Your task to perform on an android device: set an alarm Image 0: 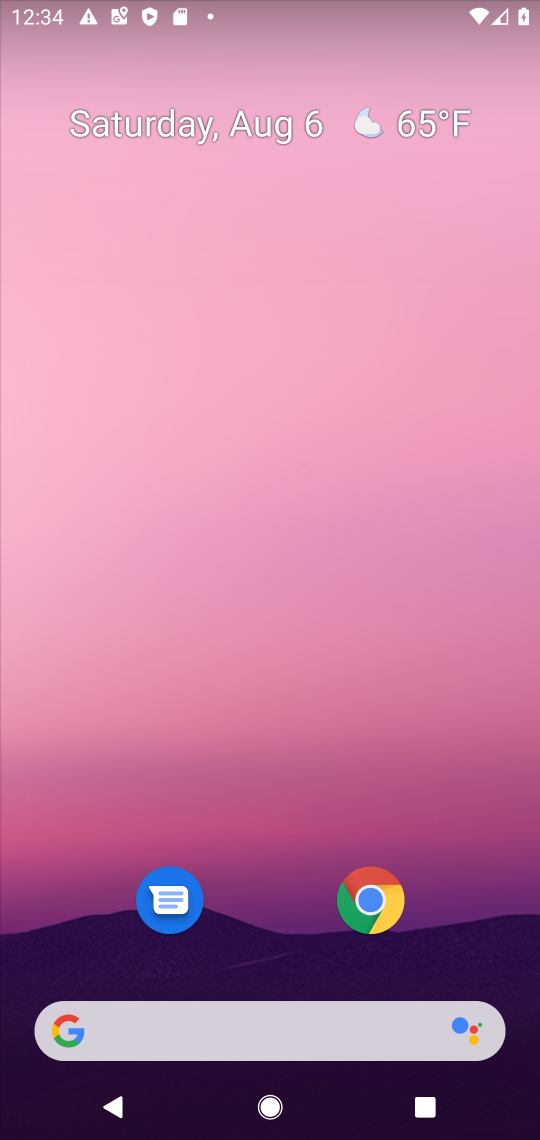
Step 0: drag from (309, 759) to (337, 144)
Your task to perform on an android device: set an alarm Image 1: 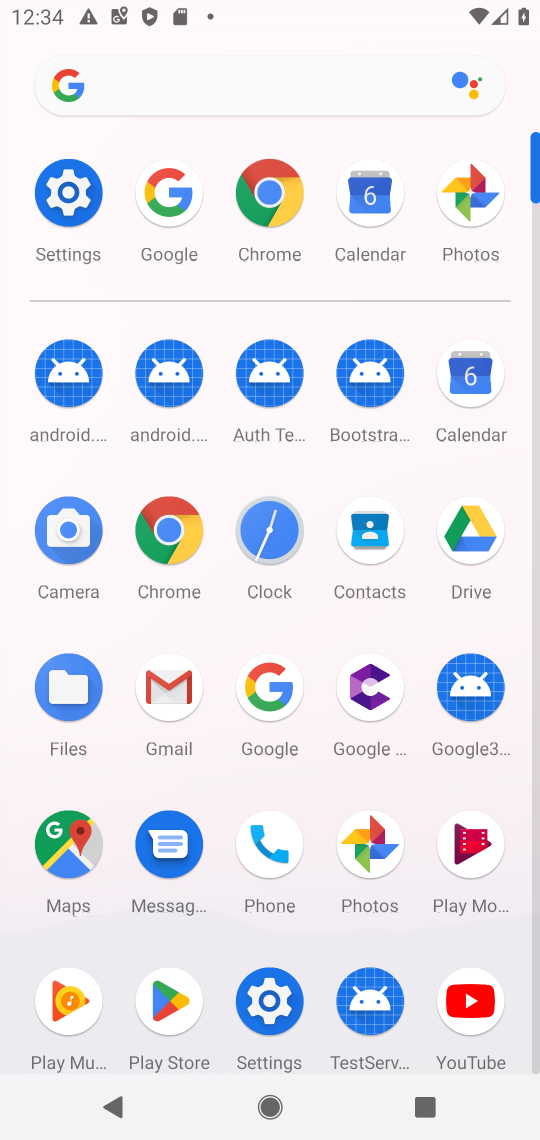
Step 1: click (278, 541)
Your task to perform on an android device: set an alarm Image 2: 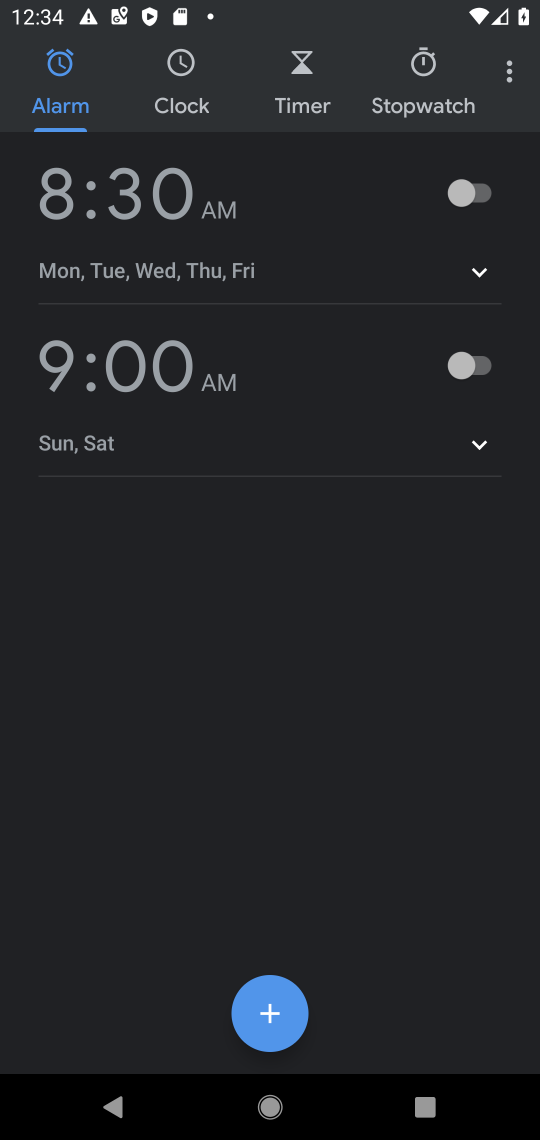
Step 2: click (274, 1007)
Your task to perform on an android device: set an alarm Image 3: 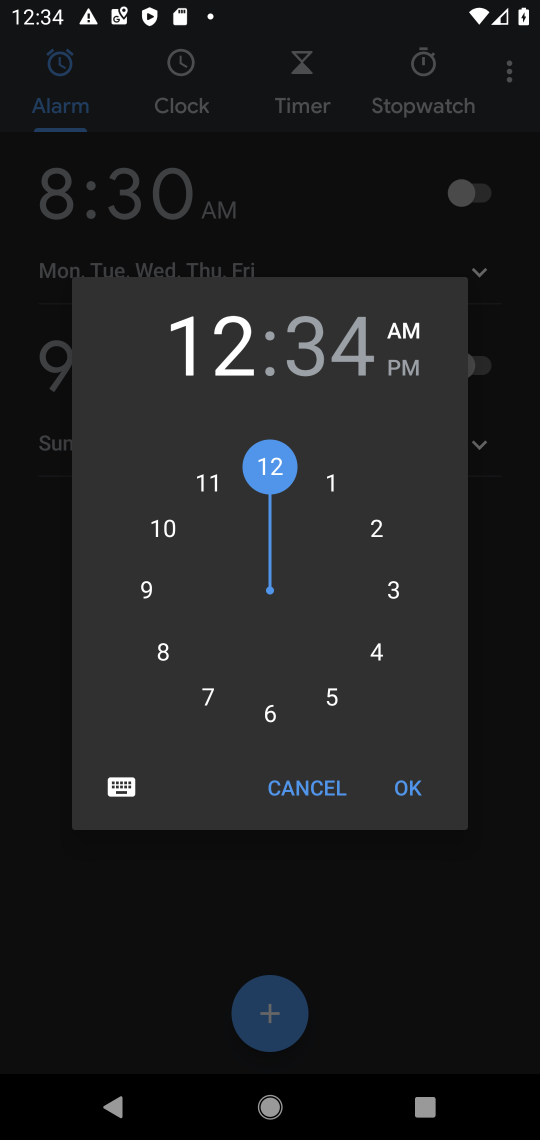
Step 3: click (270, 708)
Your task to perform on an android device: set an alarm Image 4: 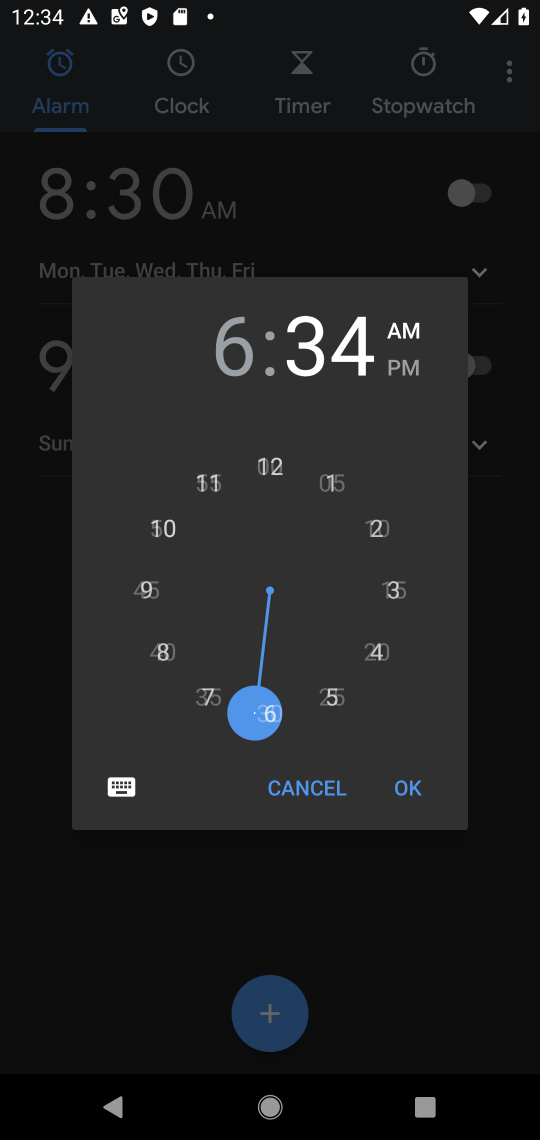
Step 4: click (412, 795)
Your task to perform on an android device: set an alarm Image 5: 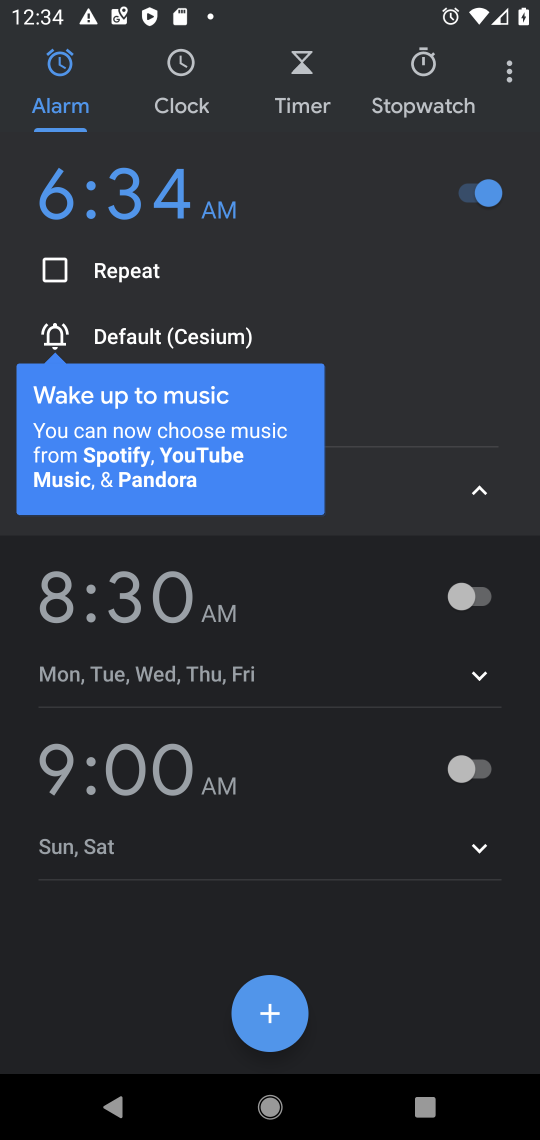
Step 5: task complete